Your task to perform on an android device: Open the Play Movies app and select the watchlist tab. Image 0: 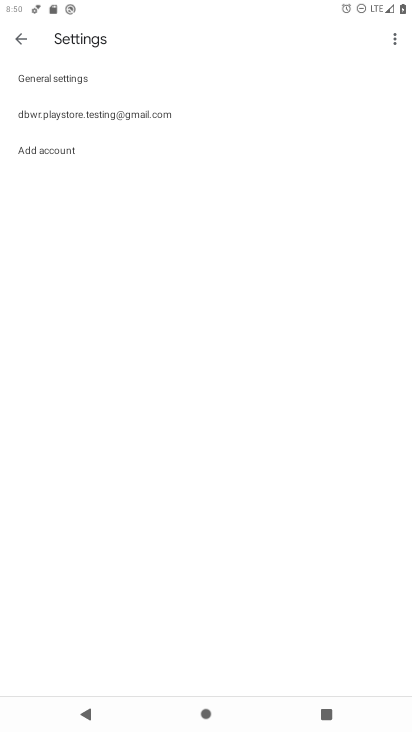
Step 0: press home button
Your task to perform on an android device: Open the Play Movies app and select the watchlist tab. Image 1: 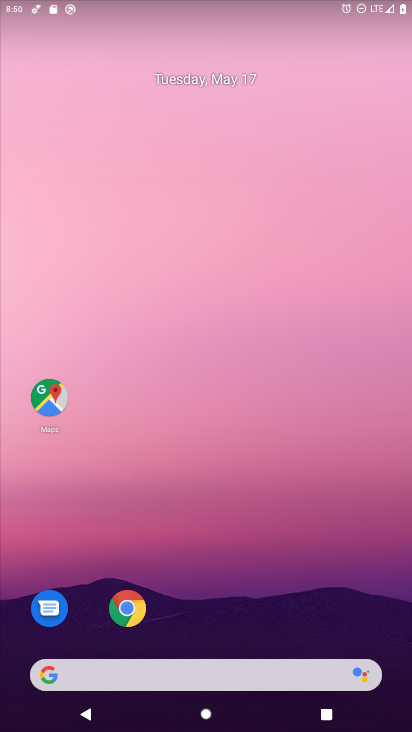
Step 1: drag from (256, 605) to (280, 7)
Your task to perform on an android device: Open the Play Movies app and select the watchlist tab. Image 2: 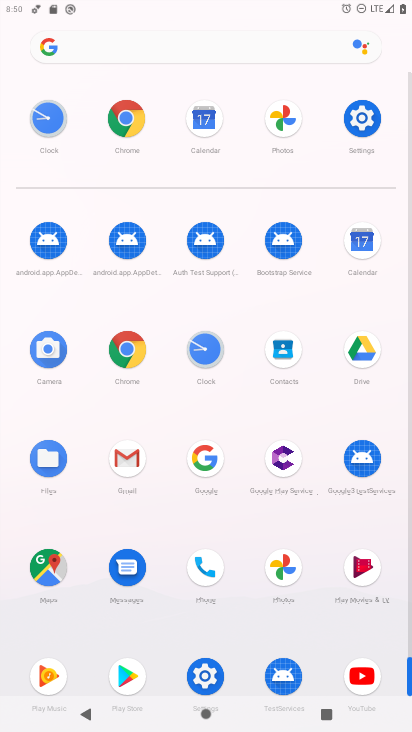
Step 2: click (359, 574)
Your task to perform on an android device: Open the Play Movies app and select the watchlist tab. Image 3: 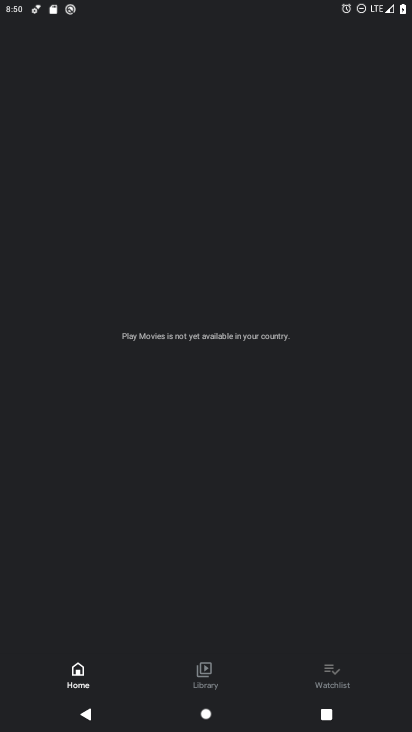
Step 3: click (321, 671)
Your task to perform on an android device: Open the Play Movies app and select the watchlist tab. Image 4: 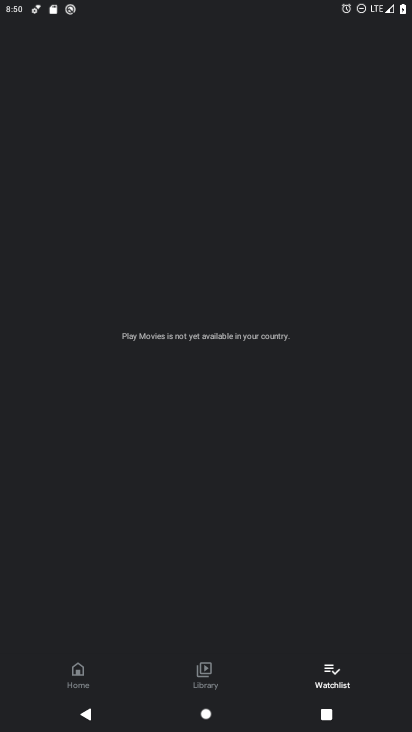
Step 4: task complete